Your task to perform on an android device: toggle pop-ups in chrome Image 0: 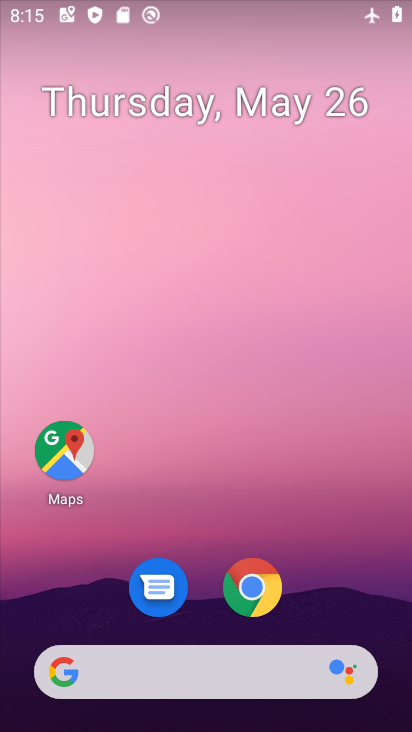
Step 0: click (244, 596)
Your task to perform on an android device: toggle pop-ups in chrome Image 1: 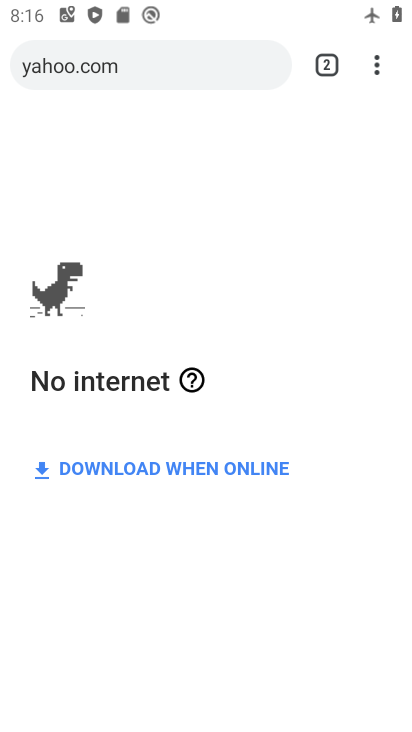
Step 1: drag from (376, 68) to (187, 622)
Your task to perform on an android device: toggle pop-ups in chrome Image 2: 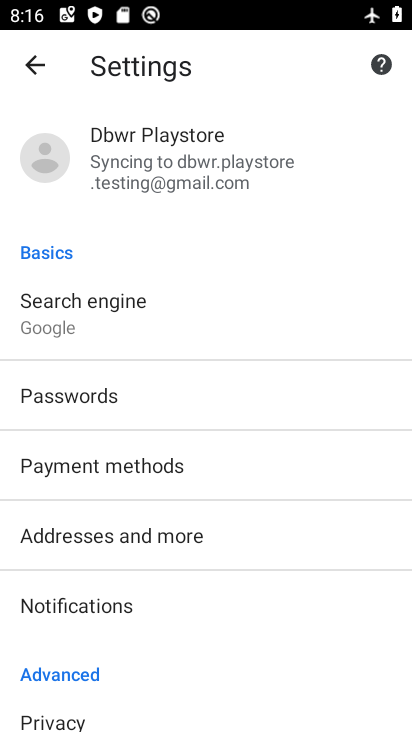
Step 2: drag from (187, 622) to (260, 344)
Your task to perform on an android device: toggle pop-ups in chrome Image 3: 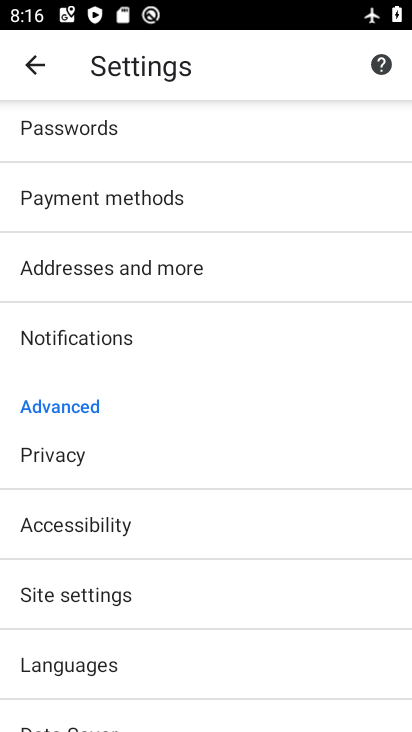
Step 3: click (181, 596)
Your task to perform on an android device: toggle pop-ups in chrome Image 4: 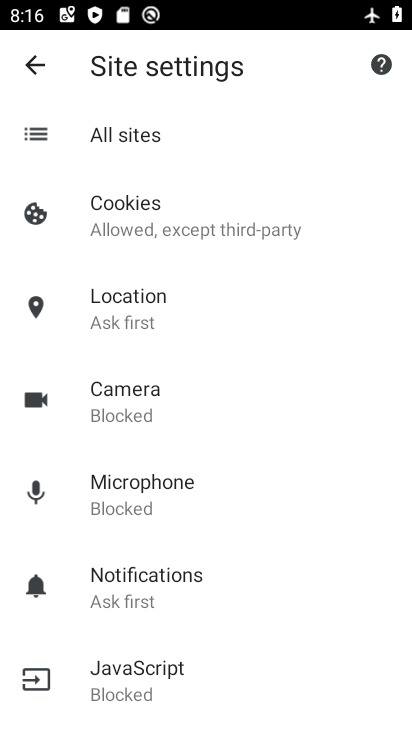
Step 4: drag from (181, 596) to (209, 448)
Your task to perform on an android device: toggle pop-ups in chrome Image 5: 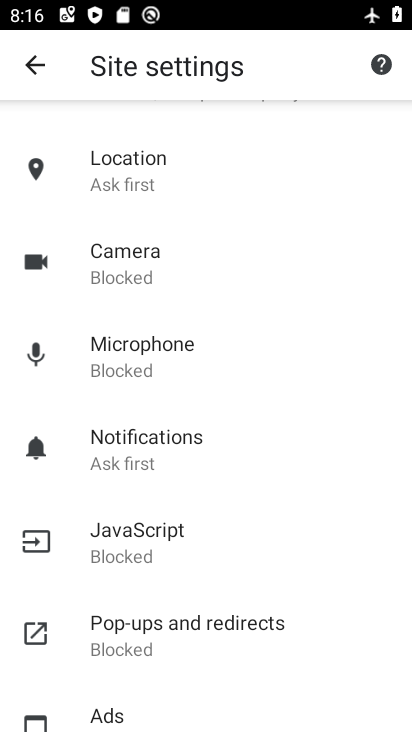
Step 5: click (209, 646)
Your task to perform on an android device: toggle pop-ups in chrome Image 6: 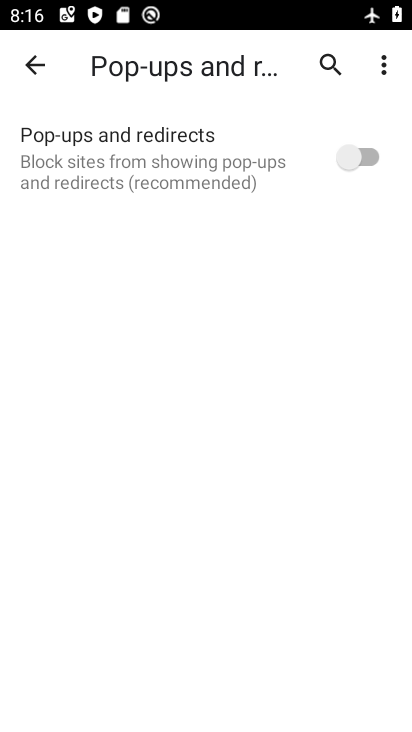
Step 6: click (369, 144)
Your task to perform on an android device: toggle pop-ups in chrome Image 7: 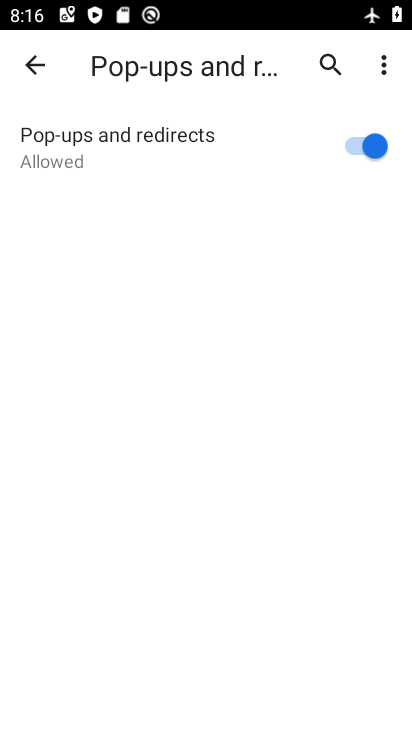
Step 7: task complete